Your task to perform on an android device: turn off javascript in the chrome app Image 0: 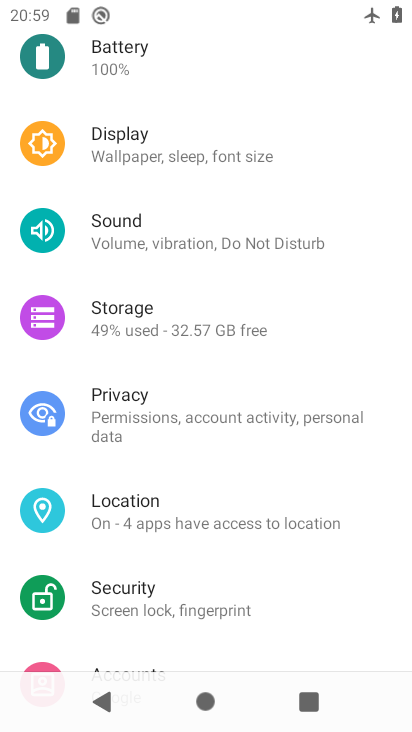
Step 0: press home button
Your task to perform on an android device: turn off javascript in the chrome app Image 1: 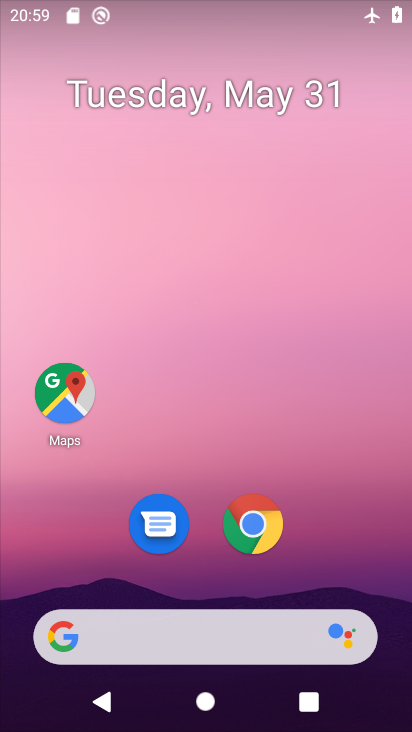
Step 1: click (264, 529)
Your task to perform on an android device: turn off javascript in the chrome app Image 2: 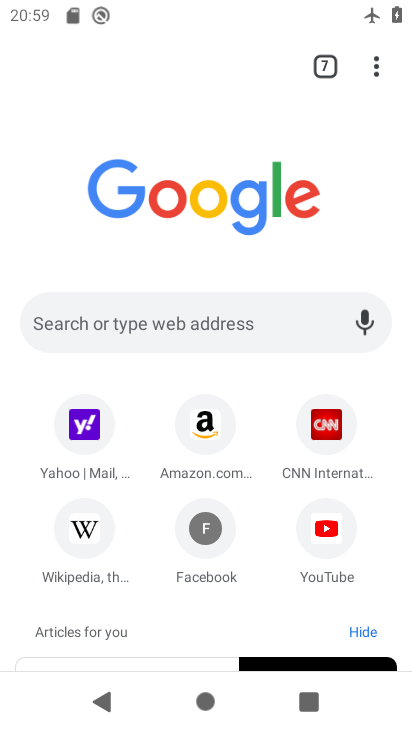
Step 2: click (374, 60)
Your task to perform on an android device: turn off javascript in the chrome app Image 3: 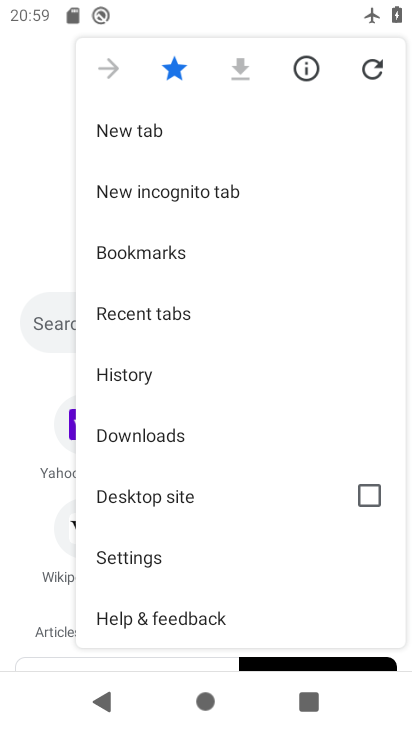
Step 3: click (192, 558)
Your task to perform on an android device: turn off javascript in the chrome app Image 4: 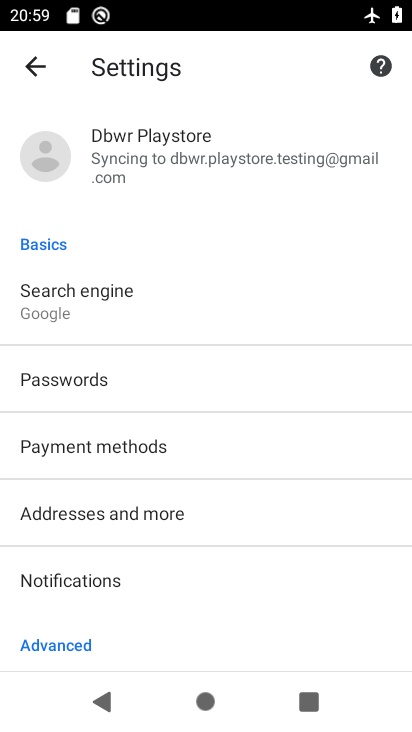
Step 4: drag from (255, 484) to (297, 283)
Your task to perform on an android device: turn off javascript in the chrome app Image 5: 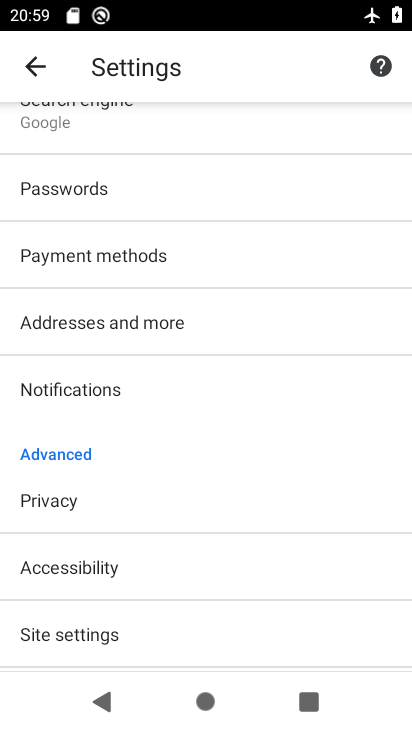
Step 5: click (260, 622)
Your task to perform on an android device: turn off javascript in the chrome app Image 6: 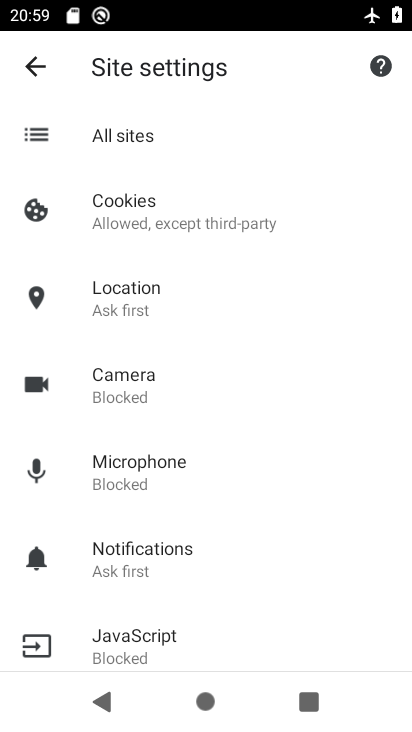
Step 6: click (256, 635)
Your task to perform on an android device: turn off javascript in the chrome app Image 7: 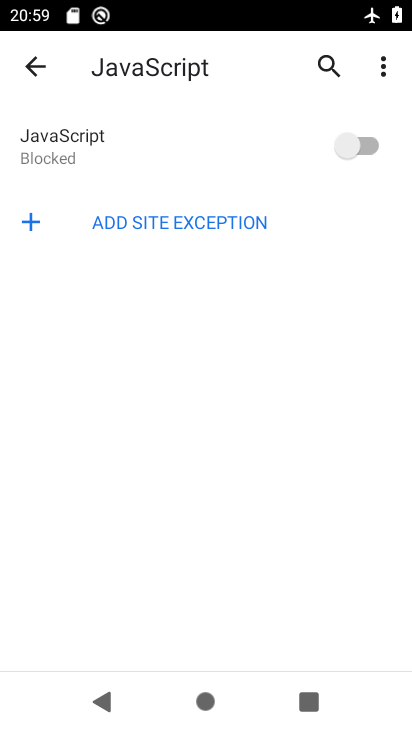
Step 7: task complete